Your task to perform on an android device: Go to Google Image 0: 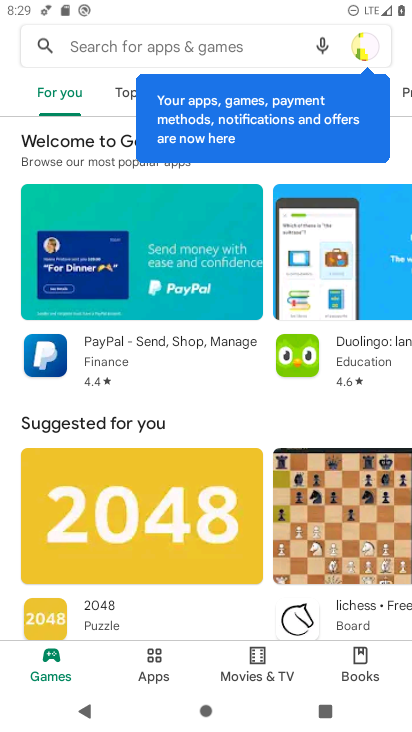
Step 0: press home button
Your task to perform on an android device: Go to Google Image 1: 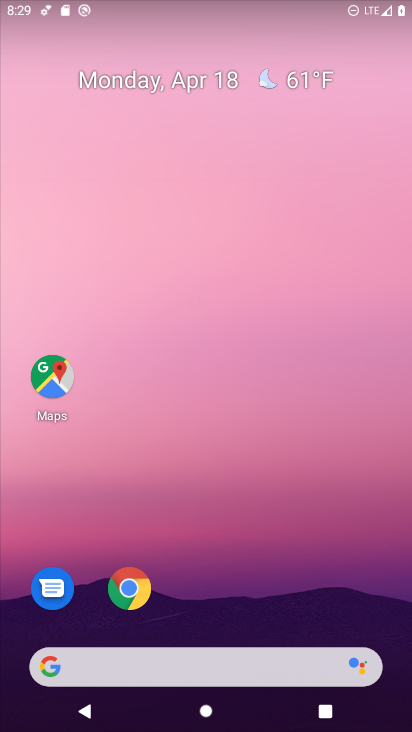
Step 1: click (130, 588)
Your task to perform on an android device: Go to Google Image 2: 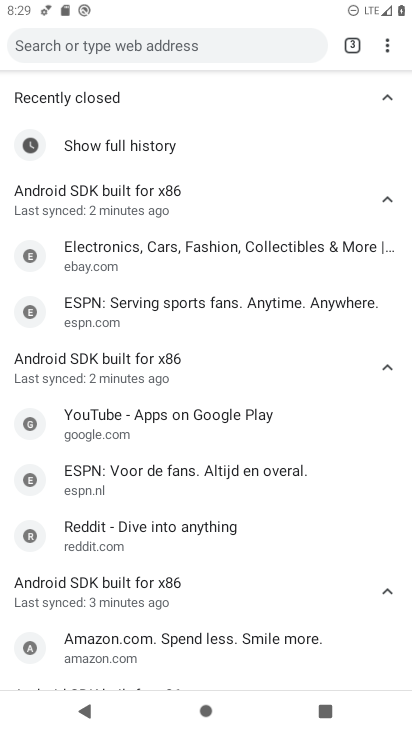
Step 2: task complete